Your task to perform on an android device: see sites visited before in the chrome app Image 0: 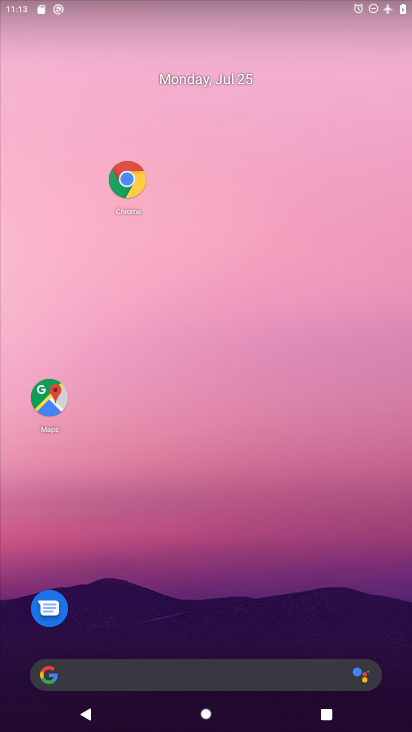
Step 0: click (129, 177)
Your task to perform on an android device: see sites visited before in the chrome app Image 1: 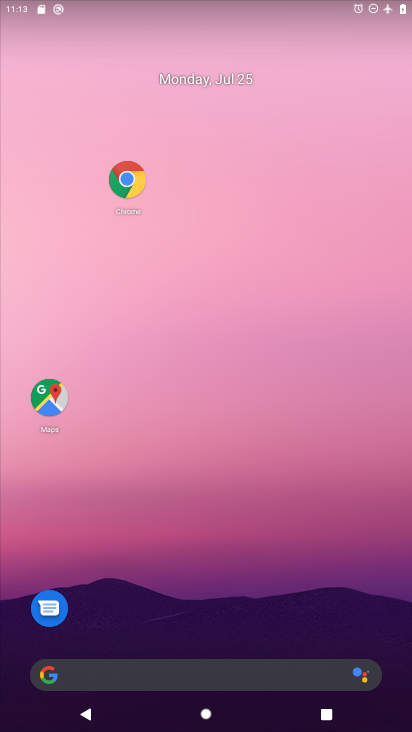
Step 1: click (129, 177)
Your task to perform on an android device: see sites visited before in the chrome app Image 2: 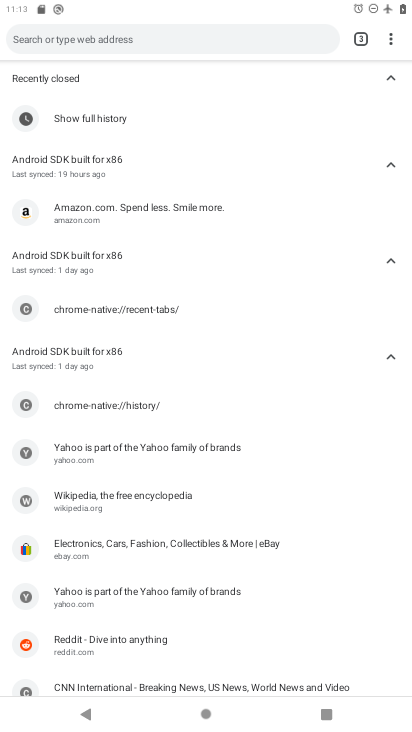
Step 2: task complete